Your task to perform on an android device: Go to calendar. Show me events next week Image 0: 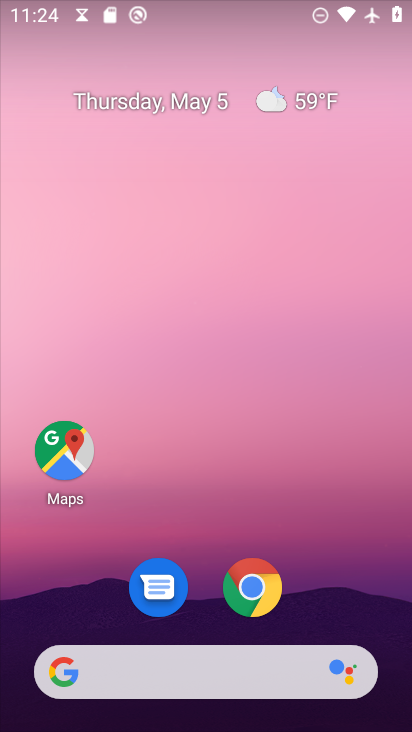
Step 0: drag from (313, 554) to (315, 34)
Your task to perform on an android device: Go to calendar. Show me events next week Image 1: 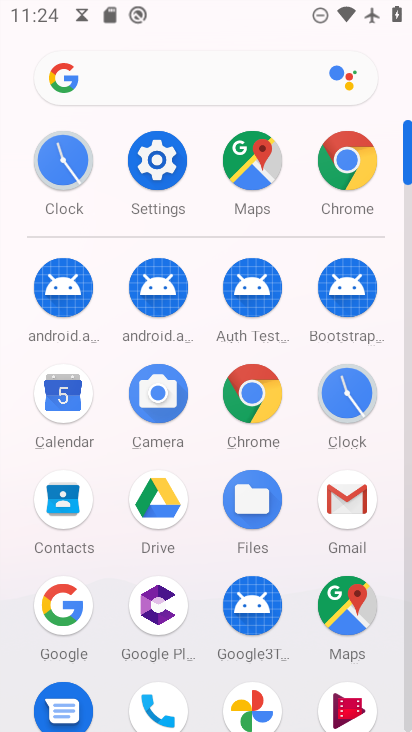
Step 1: drag from (21, 602) to (3, 439)
Your task to perform on an android device: Go to calendar. Show me events next week Image 2: 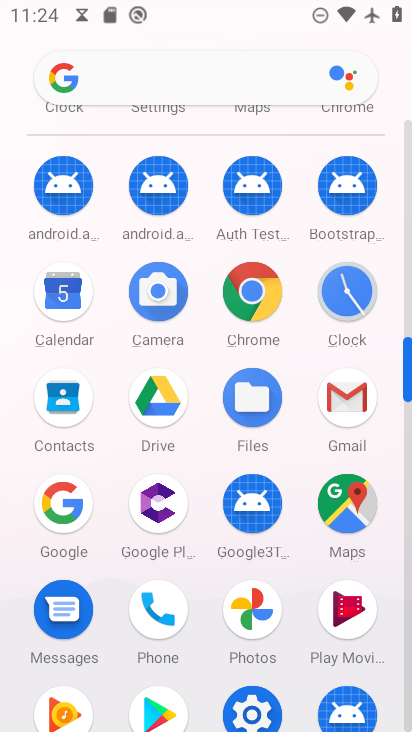
Step 2: click (54, 290)
Your task to perform on an android device: Go to calendar. Show me events next week Image 3: 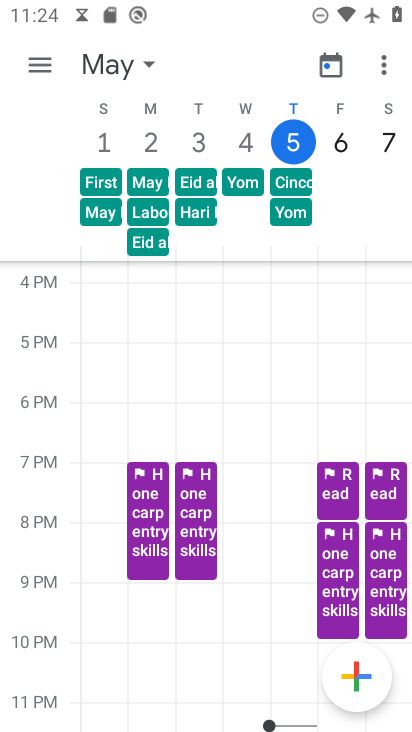
Step 3: task complete